Your task to perform on an android device: Show me popular games on the Play Store Image 0: 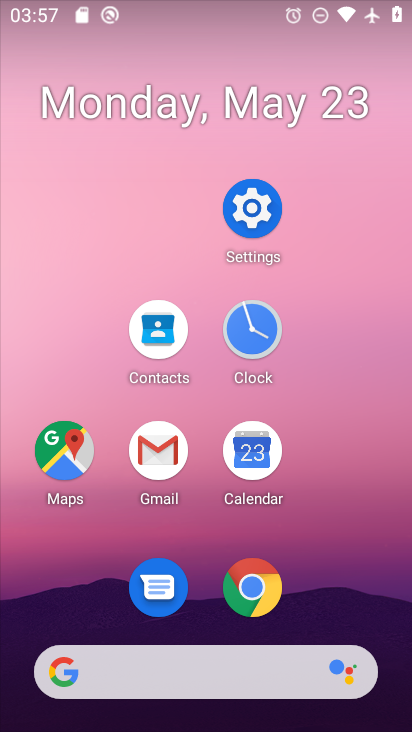
Step 0: drag from (340, 593) to (341, 100)
Your task to perform on an android device: Show me popular games on the Play Store Image 1: 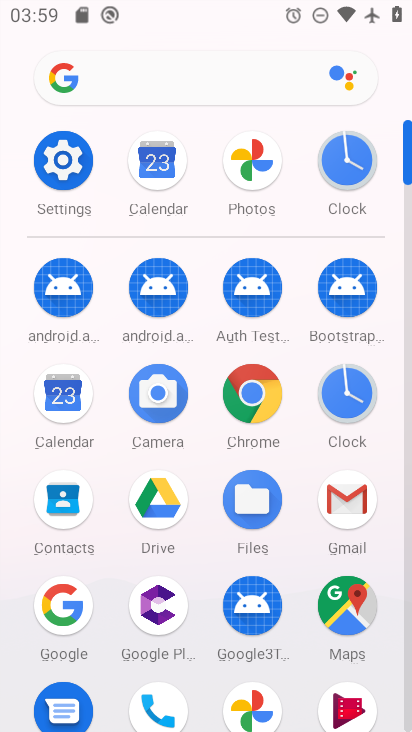
Step 1: click (407, 722)
Your task to perform on an android device: Show me popular games on the Play Store Image 2: 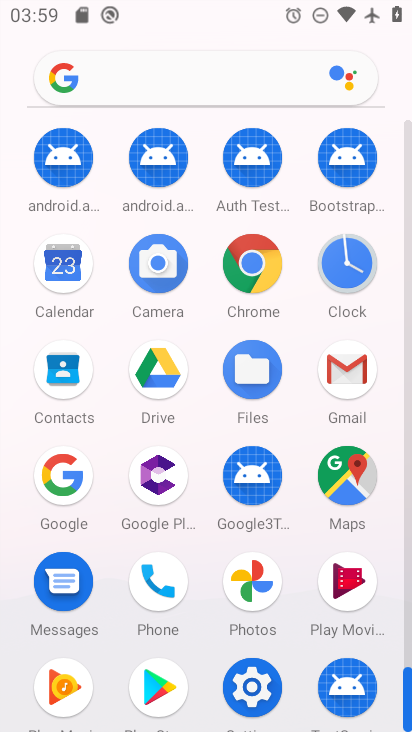
Step 2: click (407, 722)
Your task to perform on an android device: Show me popular games on the Play Store Image 3: 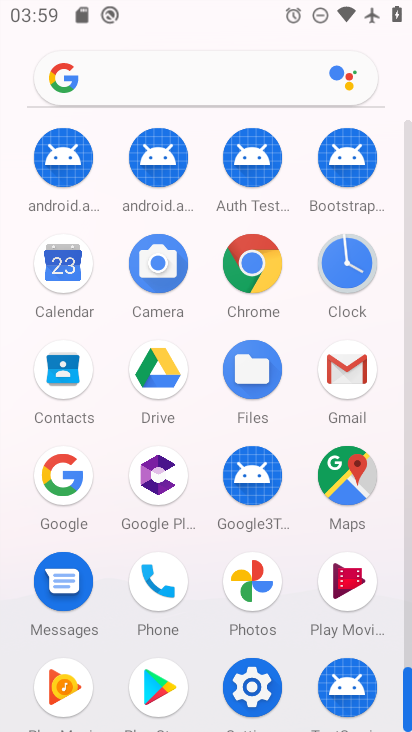
Step 3: click (146, 702)
Your task to perform on an android device: Show me popular games on the Play Store Image 4: 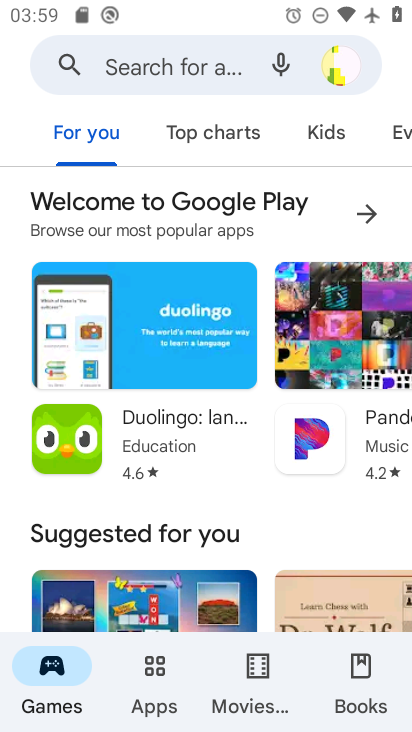
Step 4: click (191, 142)
Your task to perform on an android device: Show me popular games on the Play Store Image 5: 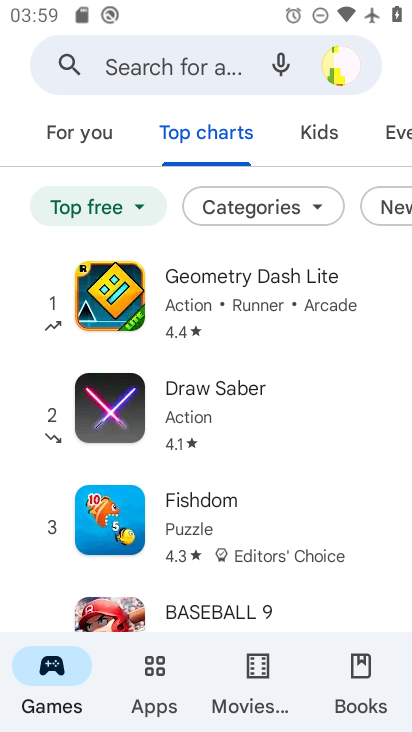
Step 5: task complete